Your task to perform on an android device: set default search engine in the chrome app Image 0: 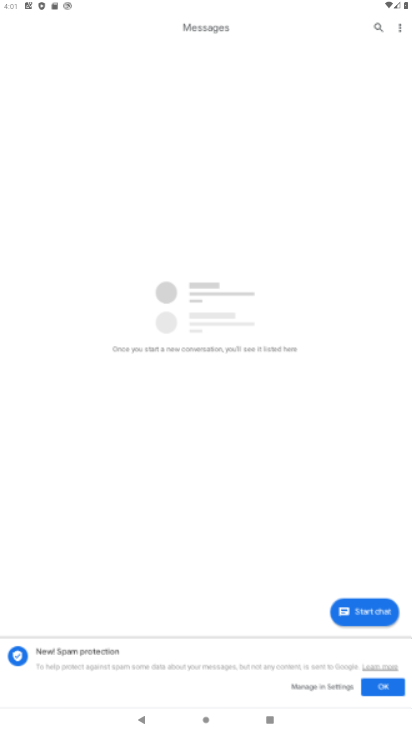
Step 0: click (141, 645)
Your task to perform on an android device: set default search engine in the chrome app Image 1: 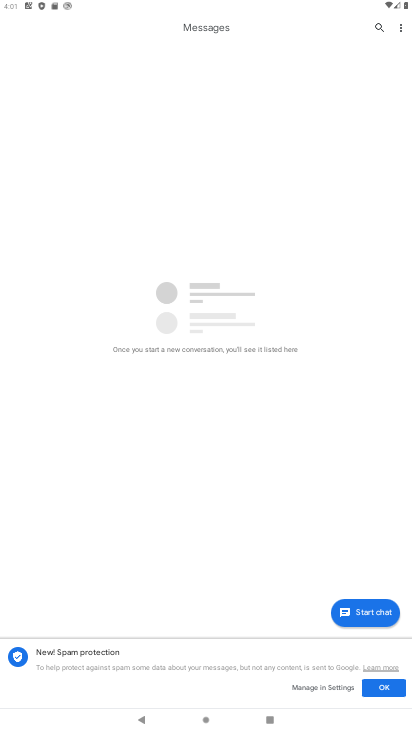
Step 1: press home button
Your task to perform on an android device: set default search engine in the chrome app Image 2: 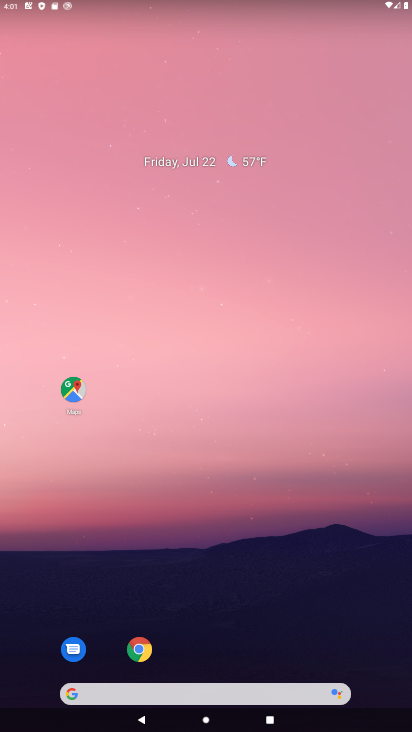
Step 2: click (134, 649)
Your task to perform on an android device: set default search engine in the chrome app Image 3: 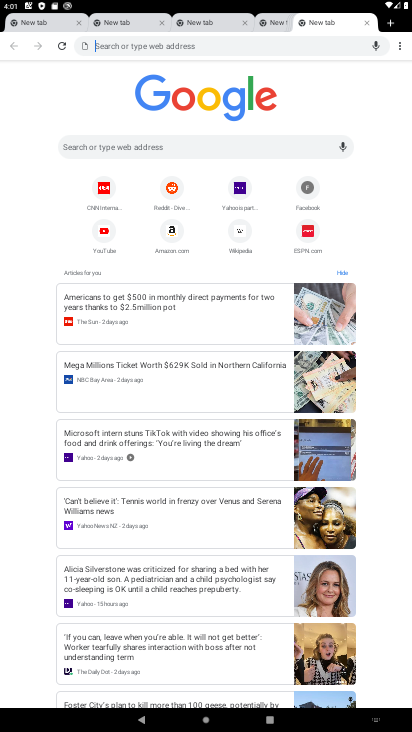
Step 3: click (397, 45)
Your task to perform on an android device: set default search engine in the chrome app Image 4: 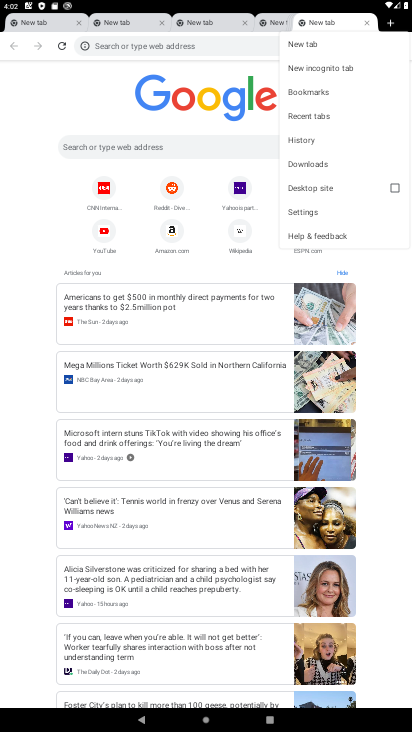
Step 4: click (303, 214)
Your task to perform on an android device: set default search engine in the chrome app Image 5: 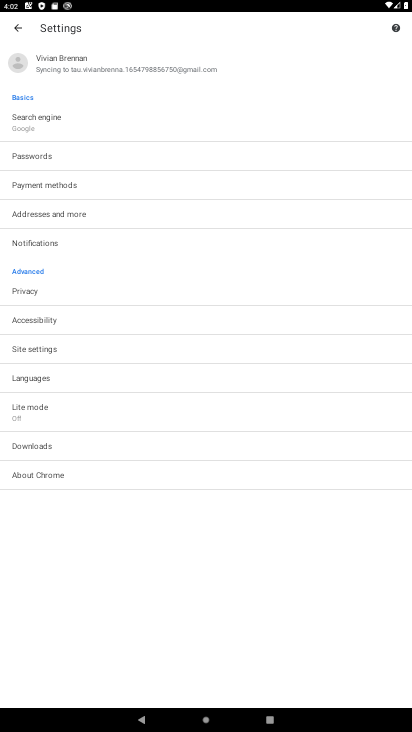
Step 5: task complete